Your task to perform on an android device: change the clock display to analog Image 0: 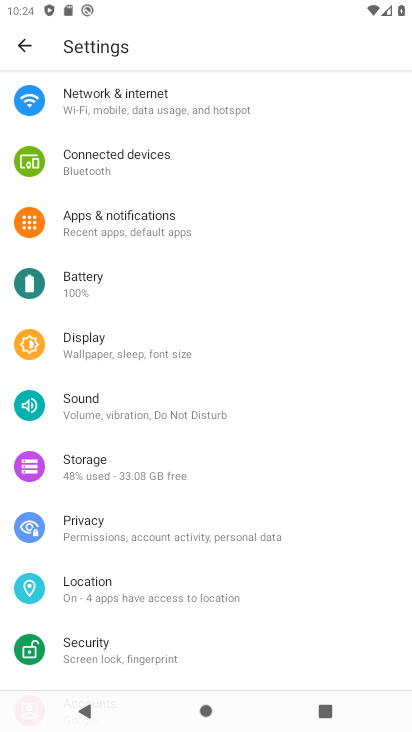
Step 0: press home button
Your task to perform on an android device: change the clock display to analog Image 1: 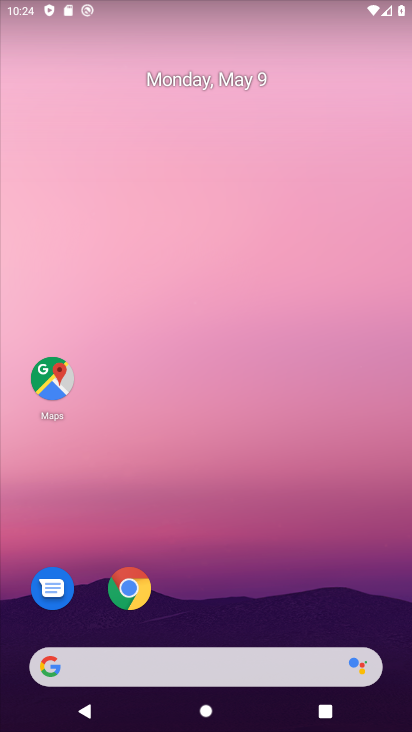
Step 1: drag from (232, 728) to (232, 93)
Your task to perform on an android device: change the clock display to analog Image 2: 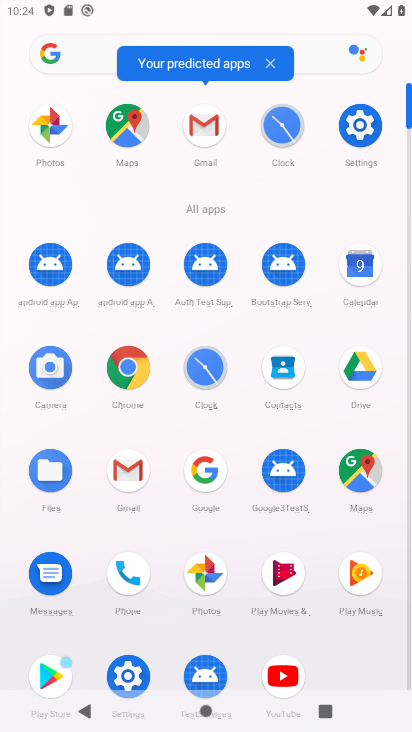
Step 2: click (200, 370)
Your task to perform on an android device: change the clock display to analog Image 3: 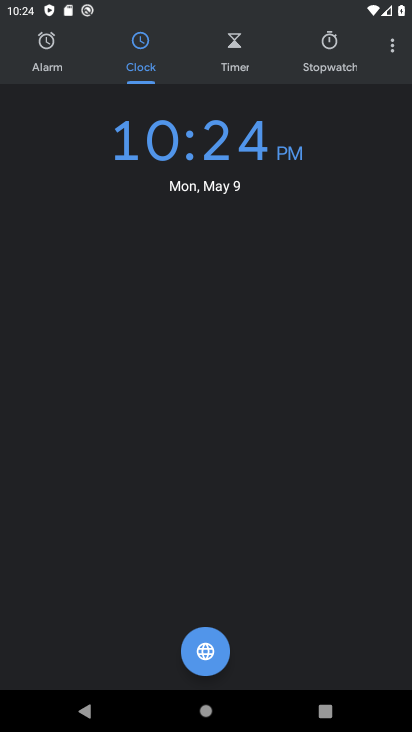
Step 3: click (391, 44)
Your task to perform on an android device: change the clock display to analog Image 4: 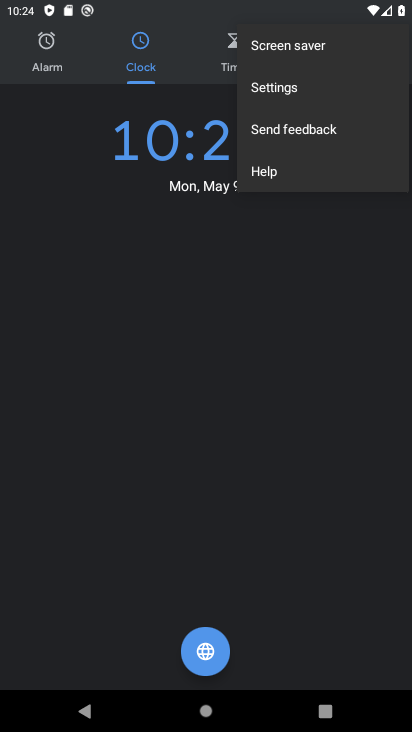
Step 4: click (281, 89)
Your task to perform on an android device: change the clock display to analog Image 5: 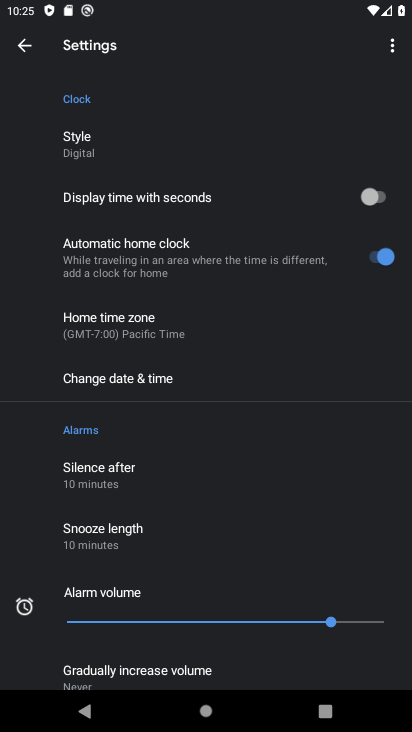
Step 5: click (85, 144)
Your task to perform on an android device: change the clock display to analog Image 6: 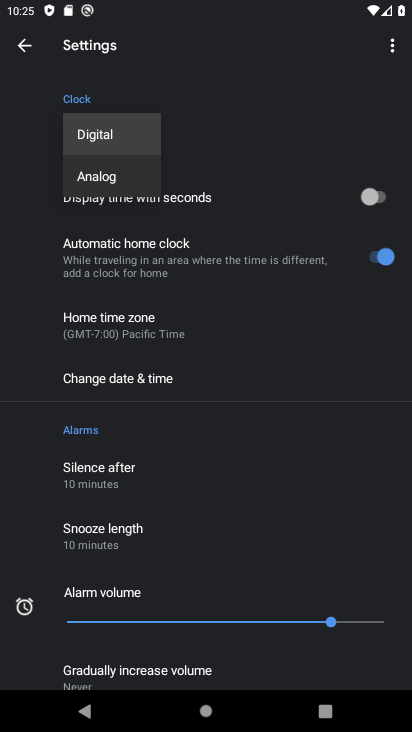
Step 6: click (97, 177)
Your task to perform on an android device: change the clock display to analog Image 7: 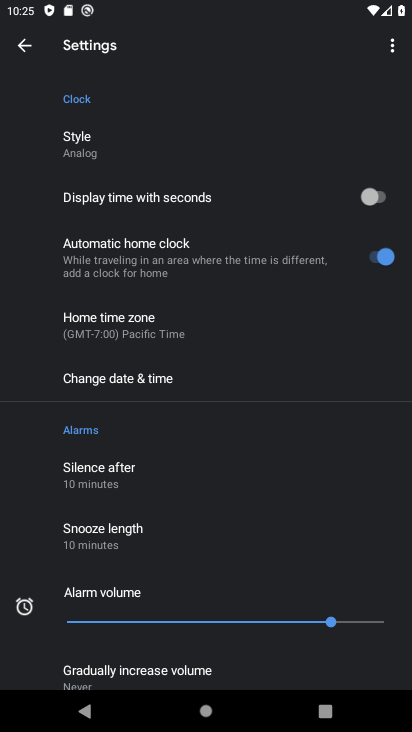
Step 7: task complete